Your task to perform on an android device: toggle sleep mode Image 0: 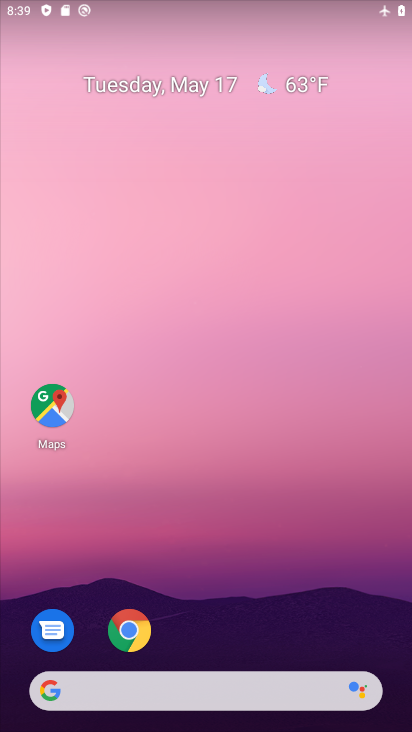
Step 0: drag from (213, 595) to (307, 226)
Your task to perform on an android device: toggle sleep mode Image 1: 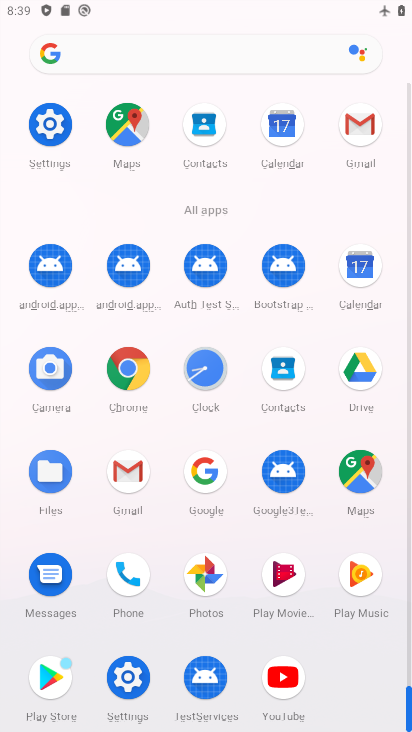
Step 1: click (132, 678)
Your task to perform on an android device: toggle sleep mode Image 2: 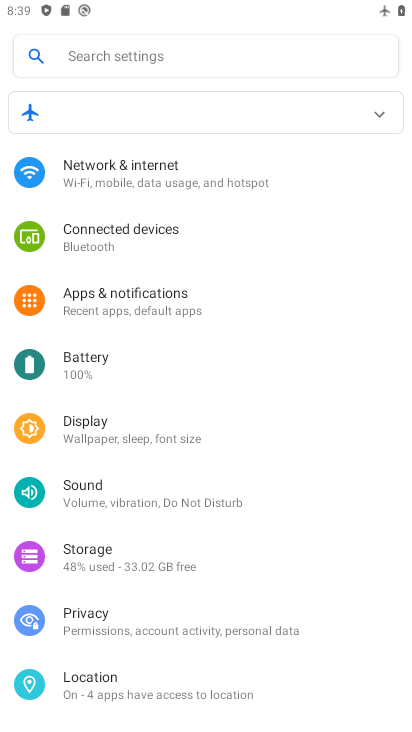
Step 2: click (149, 425)
Your task to perform on an android device: toggle sleep mode Image 3: 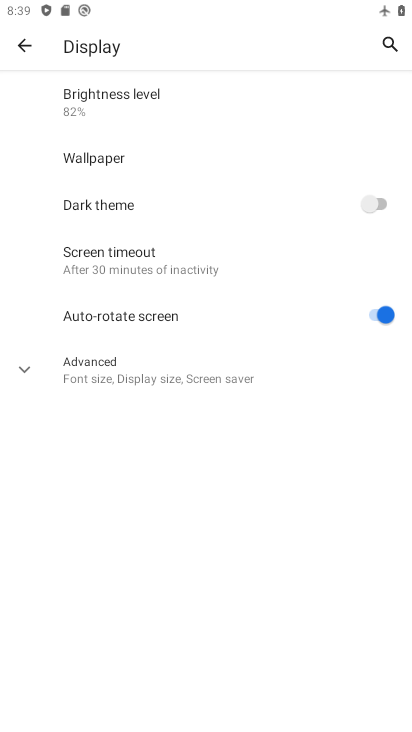
Step 3: click (239, 382)
Your task to perform on an android device: toggle sleep mode Image 4: 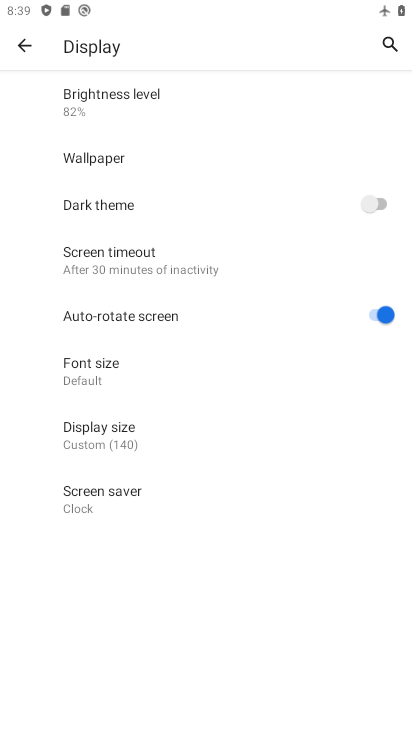
Step 4: task complete